Your task to perform on an android device: change the upload size in google photos Image 0: 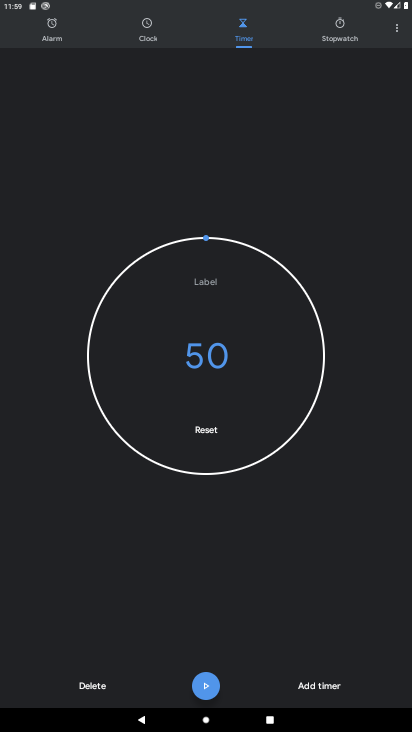
Step 0: press home button
Your task to perform on an android device: change the upload size in google photos Image 1: 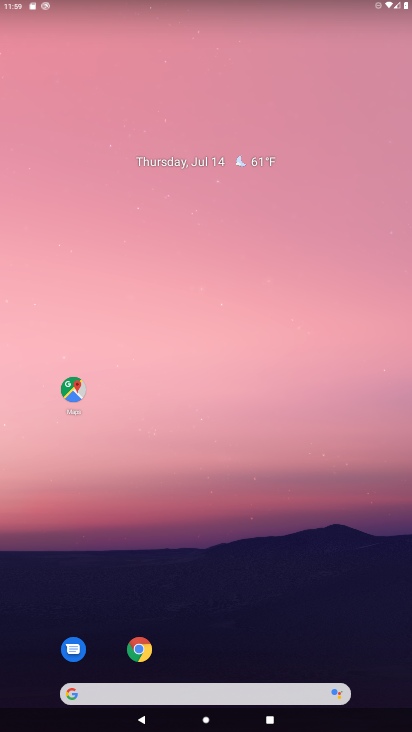
Step 1: drag from (240, 676) to (238, 21)
Your task to perform on an android device: change the upload size in google photos Image 2: 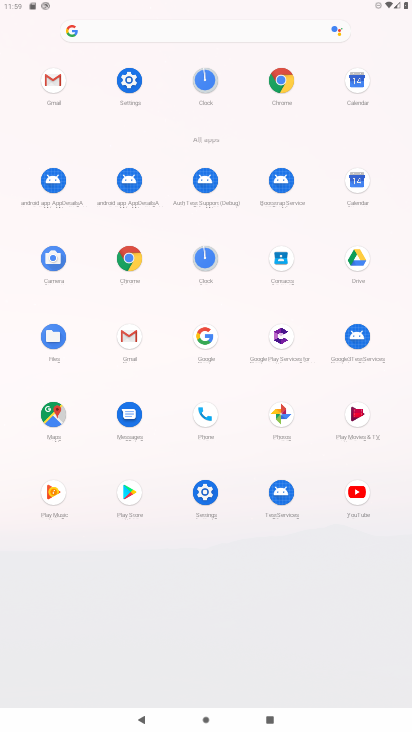
Step 2: click (272, 419)
Your task to perform on an android device: change the upload size in google photos Image 3: 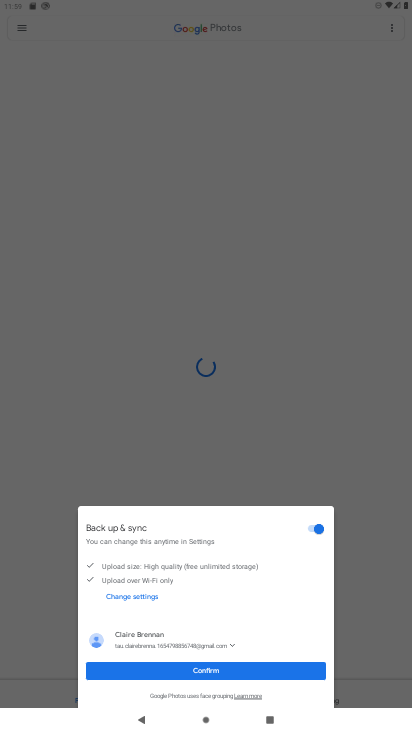
Step 3: click (111, 672)
Your task to perform on an android device: change the upload size in google photos Image 4: 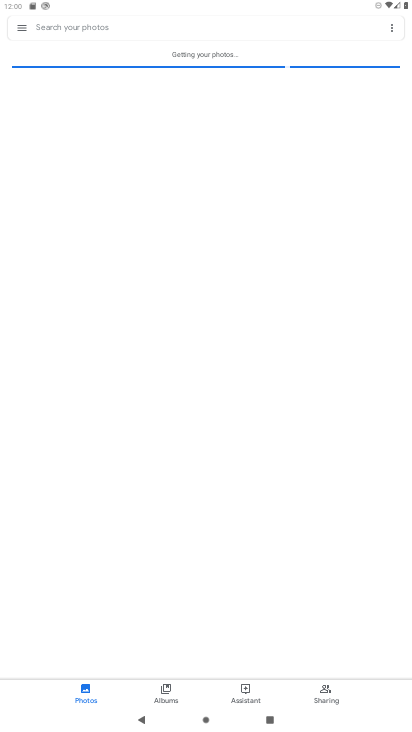
Step 4: click (20, 27)
Your task to perform on an android device: change the upload size in google photos Image 5: 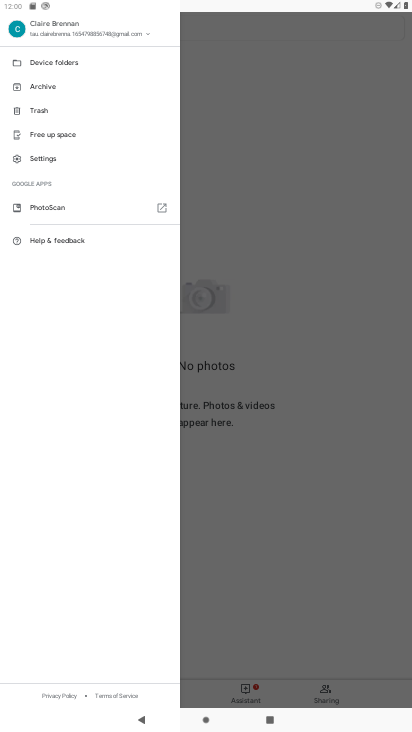
Step 5: click (55, 164)
Your task to perform on an android device: change the upload size in google photos Image 6: 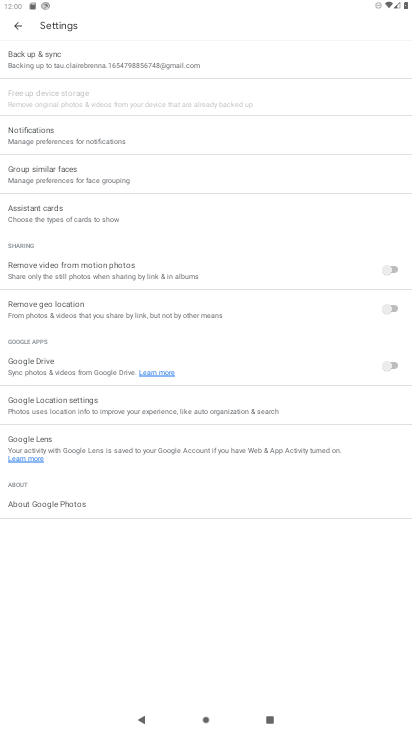
Step 6: click (52, 63)
Your task to perform on an android device: change the upload size in google photos Image 7: 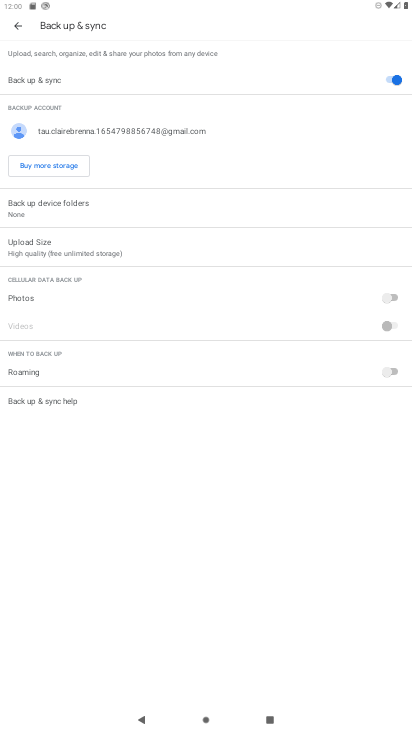
Step 7: click (45, 257)
Your task to perform on an android device: change the upload size in google photos Image 8: 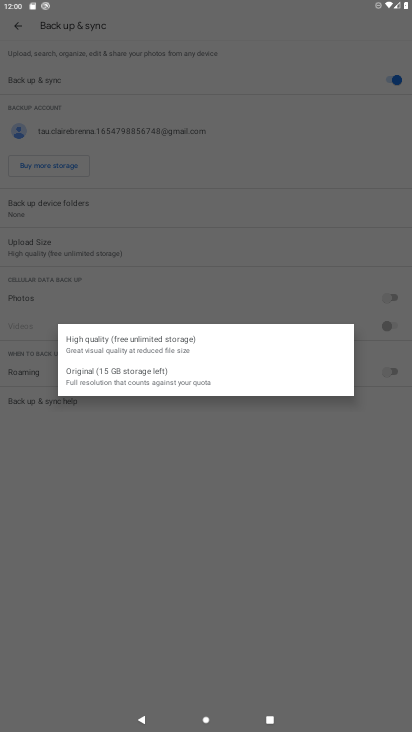
Step 8: click (120, 386)
Your task to perform on an android device: change the upload size in google photos Image 9: 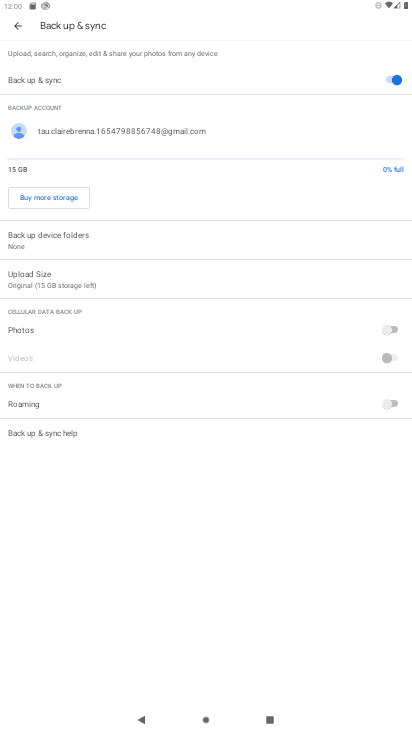
Step 9: task complete